Your task to perform on an android device: When is my next meeting? Image 0: 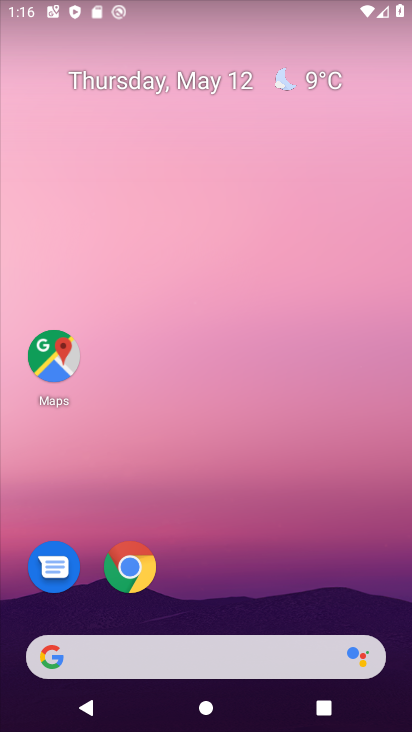
Step 0: drag from (208, 600) to (187, 0)
Your task to perform on an android device: When is my next meeting? Image 1: 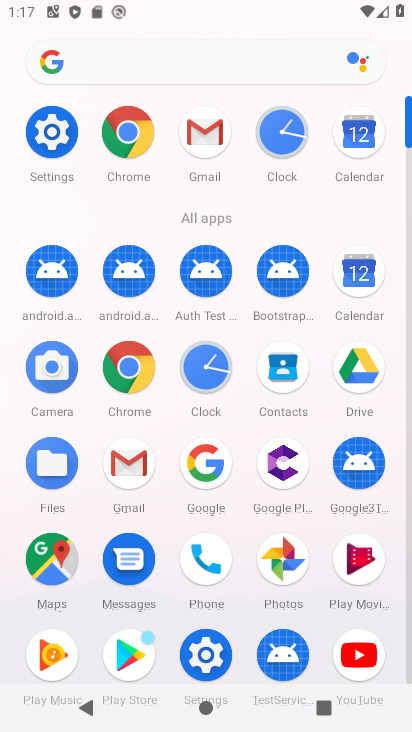
Step 1: click (358, 272)
Your task to perform on an android device: When is my next meeting? Image 2: 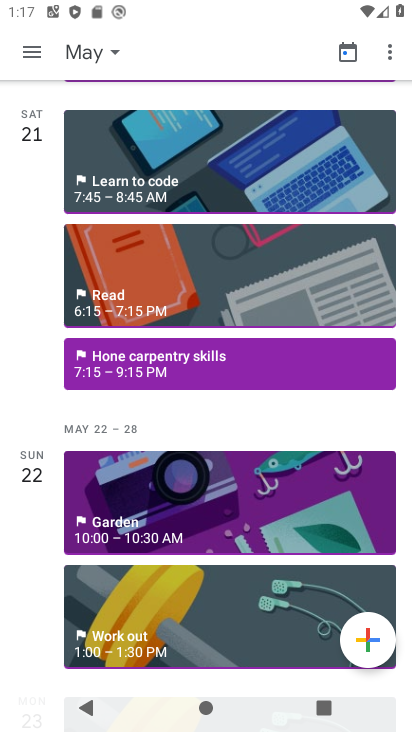
Step 2: drag from (37, 579) to (61, 153)
Your task to perform on an android device: When is my next meeting? Image 3: 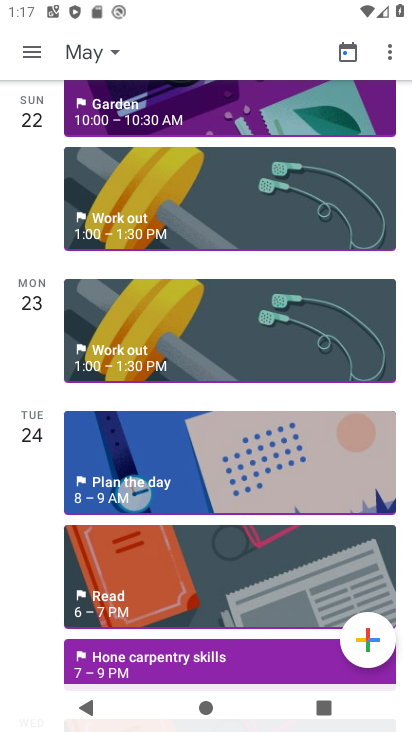
Step 3: drag from (33, 489) to (25, 230)
Your task to perform on an android device: When is my next meeting? Image 4: 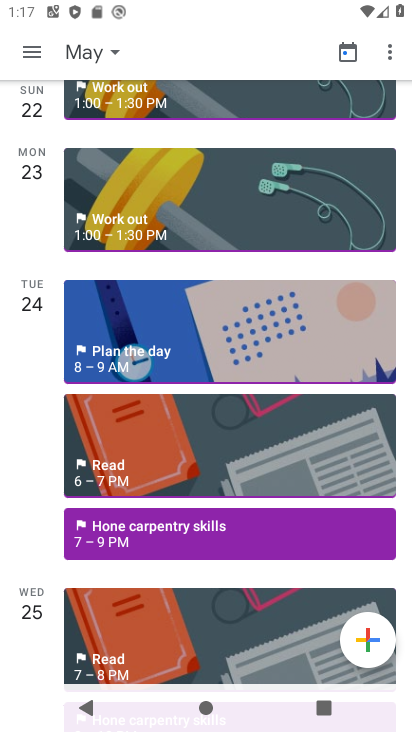
Step 4: click (25, 180)
Your task to perform on an android device: When is my next meeting? Image 5: 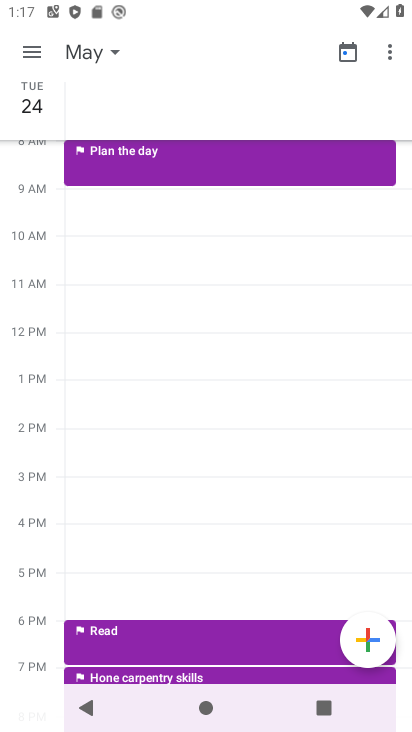
Step 5: task complete